Your task to perform on an android device: Open Chrome and go to settings Image 0: 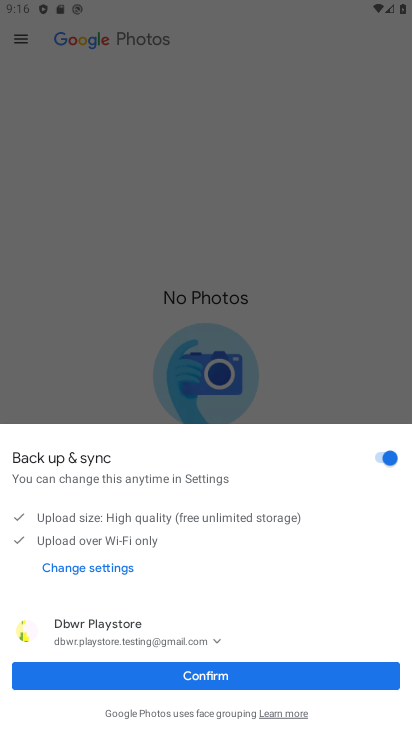
Step 0: press back button
Your task to perform on an android device: Open Chrome and go to settings Image 1: 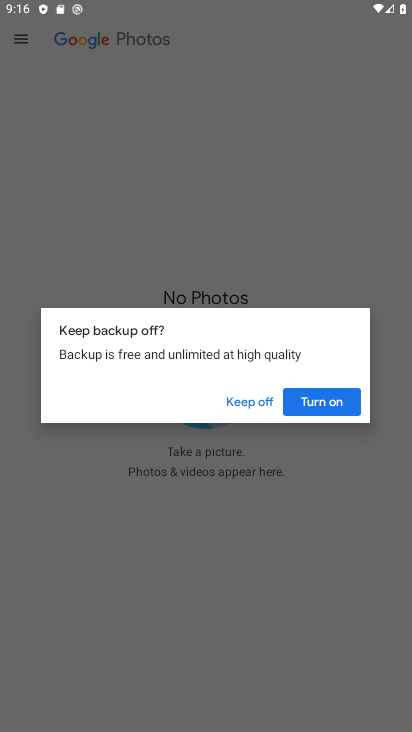
Step 1: press home button
Your task to perform on an android device: Open Chrome and go to settings Image 2: 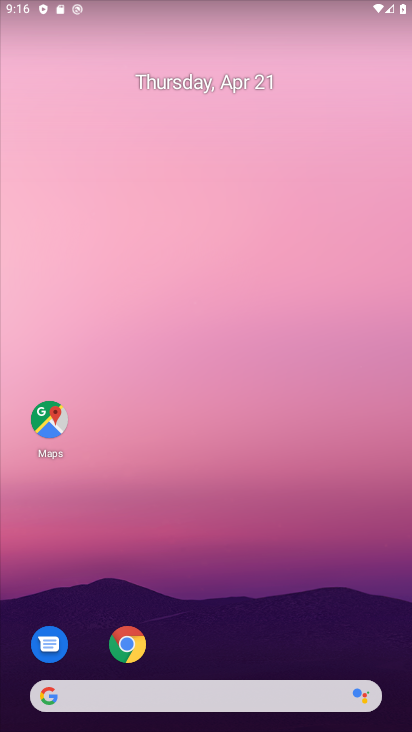
Step 2: click (122, 644)
Your task to perform on an android device: Open Chrome and go to settings Image 3: 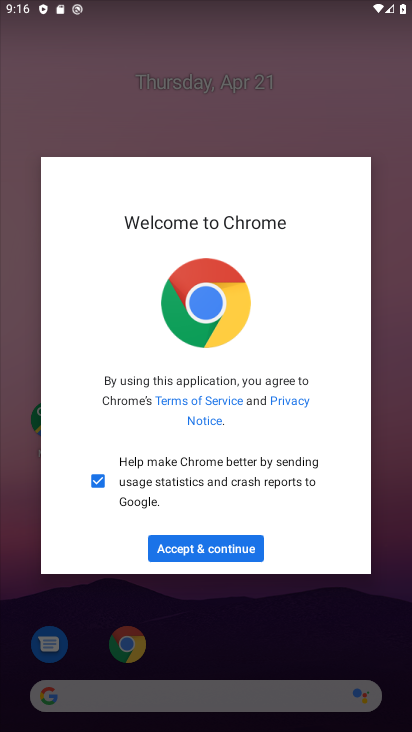
Step 3: click (197, 539)
Your task to perform on an android device: Open Chrome and go to settings Image 4: 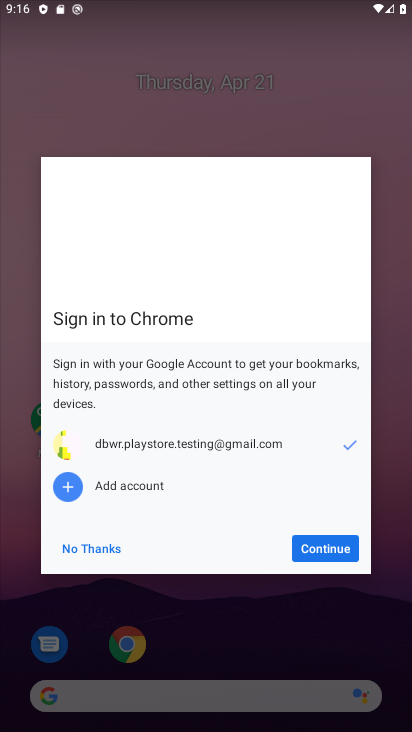
Step 4: click (316, 541)
Your task to perform on an android device: Open Chrome and go to settings Image 5: 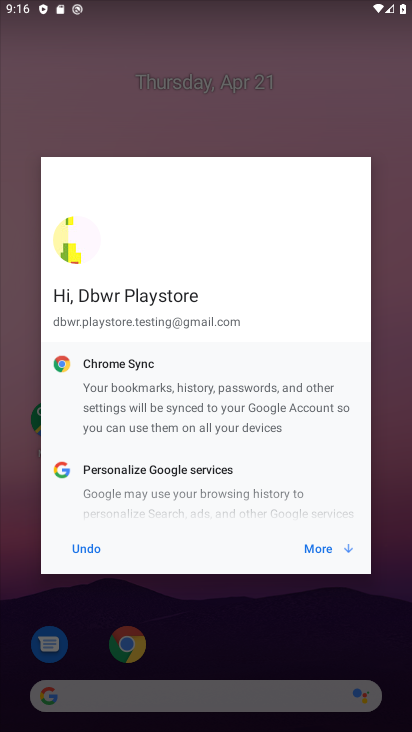
Step 5: click (316, 545)
Your task to perform on an android device: Open Chrome and go to settings Image 6: 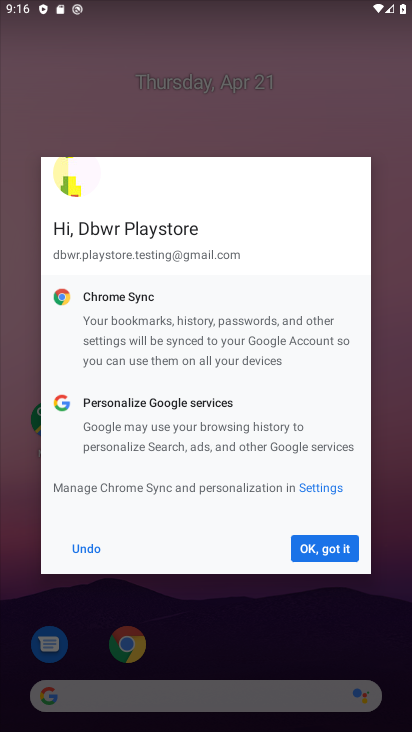
Step 6: click (317, 544)
Your task to perform on an android device: Open Chrome and go to settings Image 7: 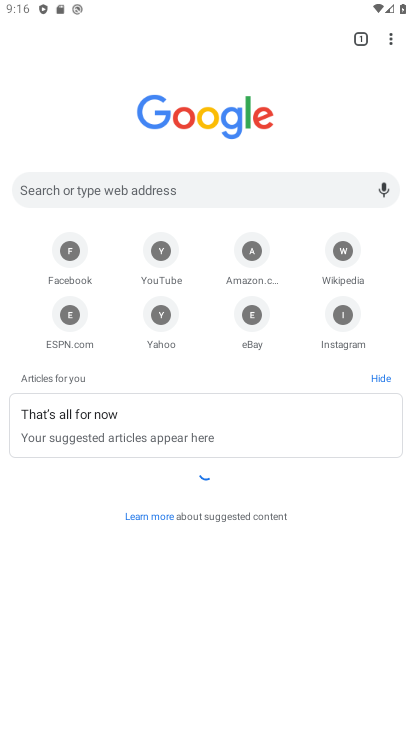
Step 7: click (399, 35)
Your task to perform on an android device: Open Chrome and go to settings Image 8: 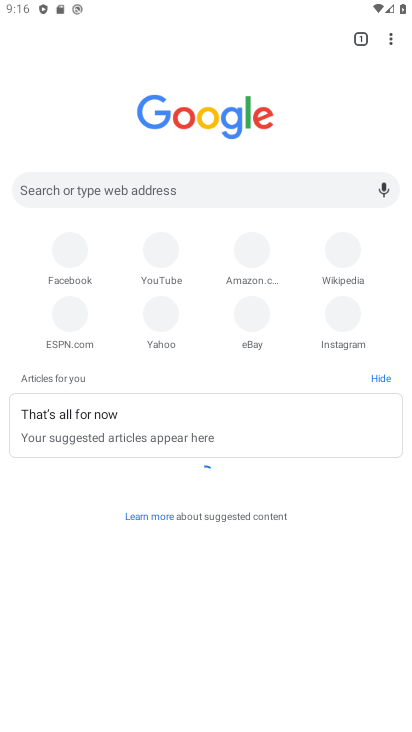
Step 8: click (393, 37)
Your task to perform on an android device: Open Chrome and go to settings Image 9: 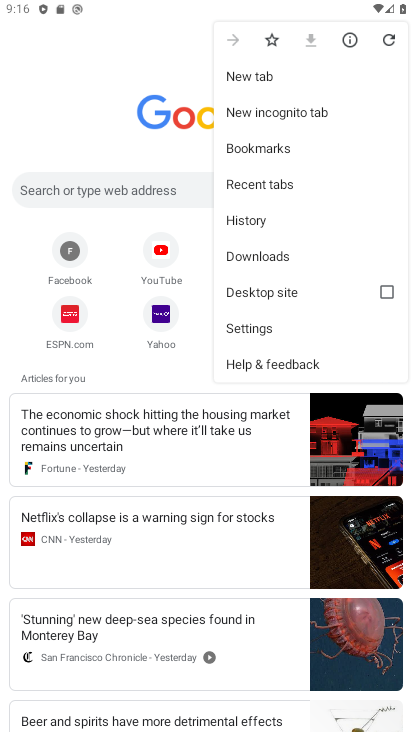
Step 9: click (262, 327)
Your task to perform on an android device: Open Chrome and go to settings Image 10: 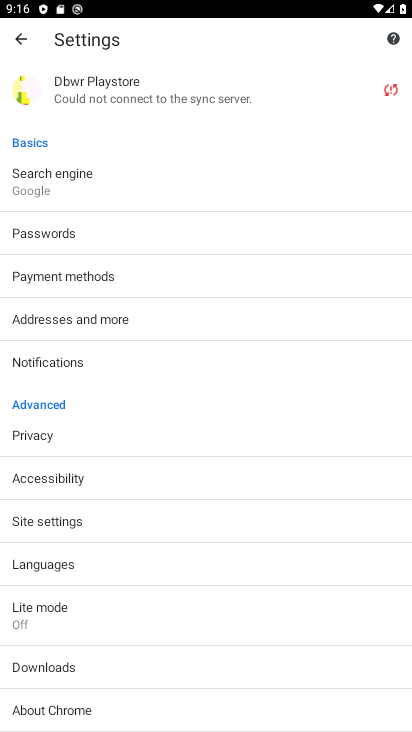
Step 10: task complete